Your task to perform on an android device: find snoozed emails in the gmail app Image 0: 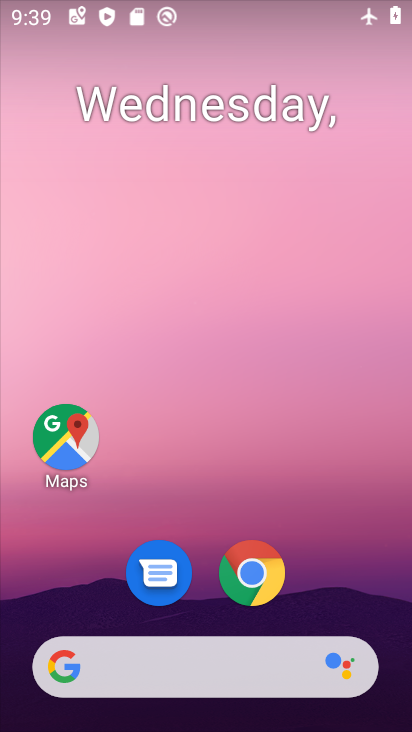
Step 0: click (381, 232)
Your task to perform on an android device: find snoozed emails in the gmail app Image 1: 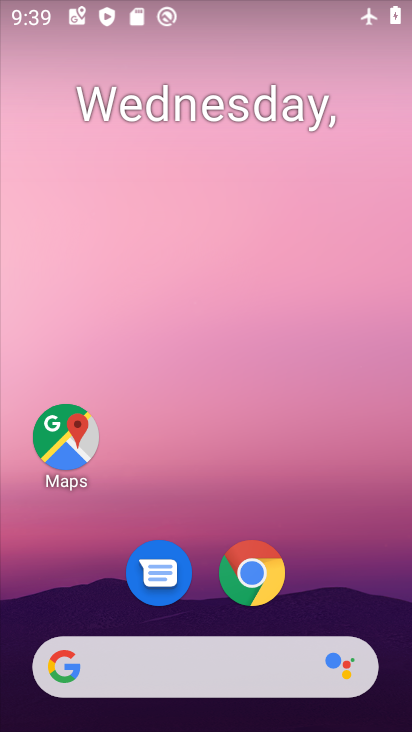
Step 1: click (366, 179)
Your task to perform on an android device: find snoozed emails in the gmail app Image 2: 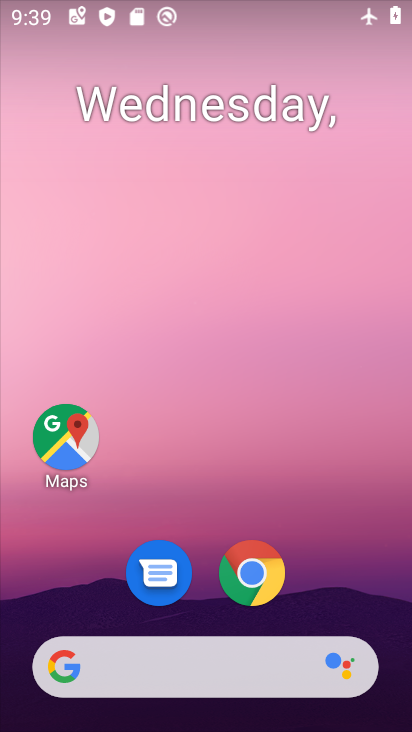
Step 2: drag from (387, 510) to (381, 175)
Your task to perform on an android device: find snoozed emails in the gmail app Image 3: 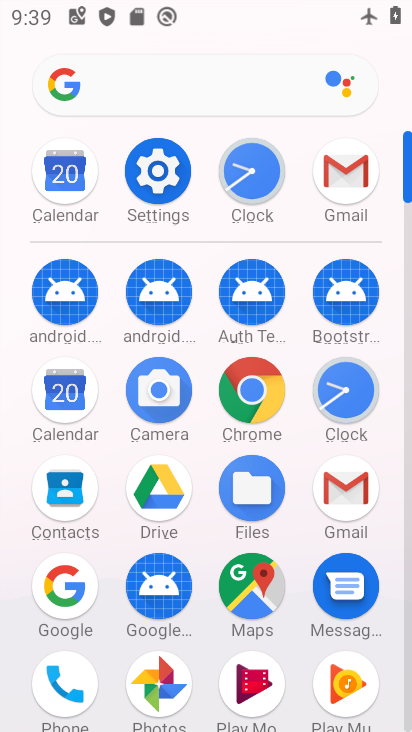
Step 3: click (340, 497)
Your task to perform on an android device: find snoozed emails in the gmail app Image 4: 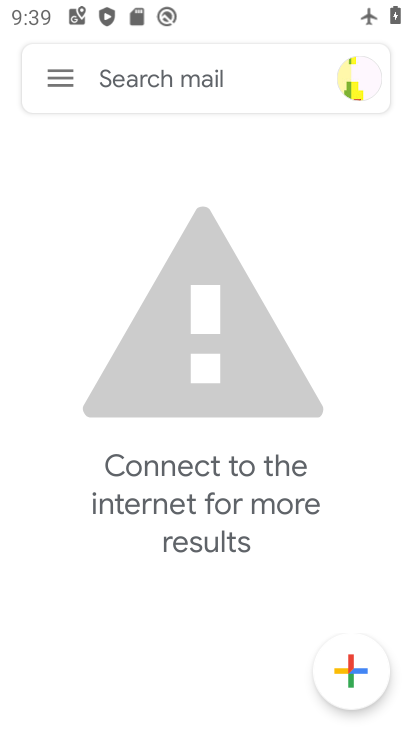
Step 4: click (51, 73)
Your task to perform on an android device: find snoozed emails in the gmail app Image 5: 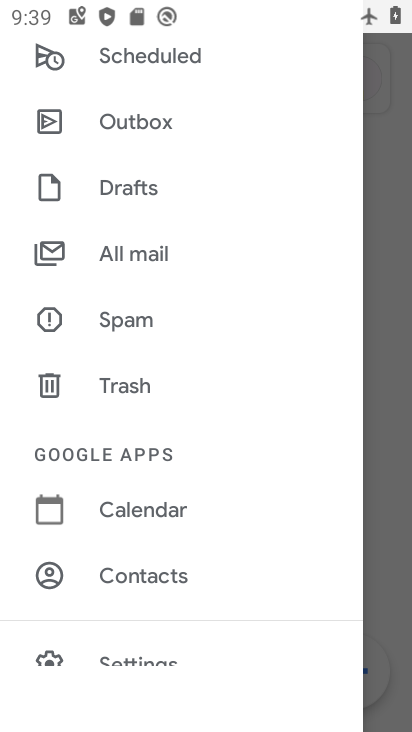
Step 5: drag from (275, 246) to (279, 486)
Your task to perform on an android device: find snoozed emails in the gmail app Image 6: 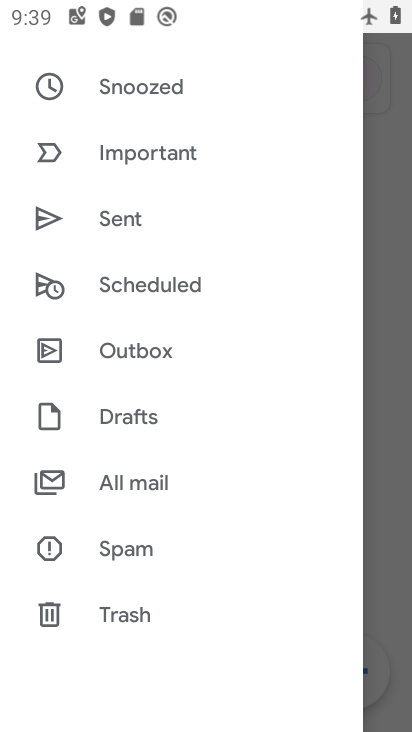
Step 6: click (116, 82)
Your task to perform on an android device: find snoozed emails in the gmail app Image 7: 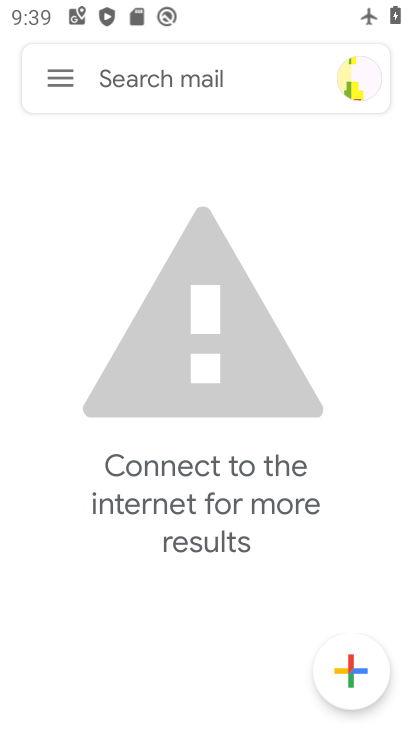
Step 7: task complete